Your task to perform on an android device: set the timer Image 0: 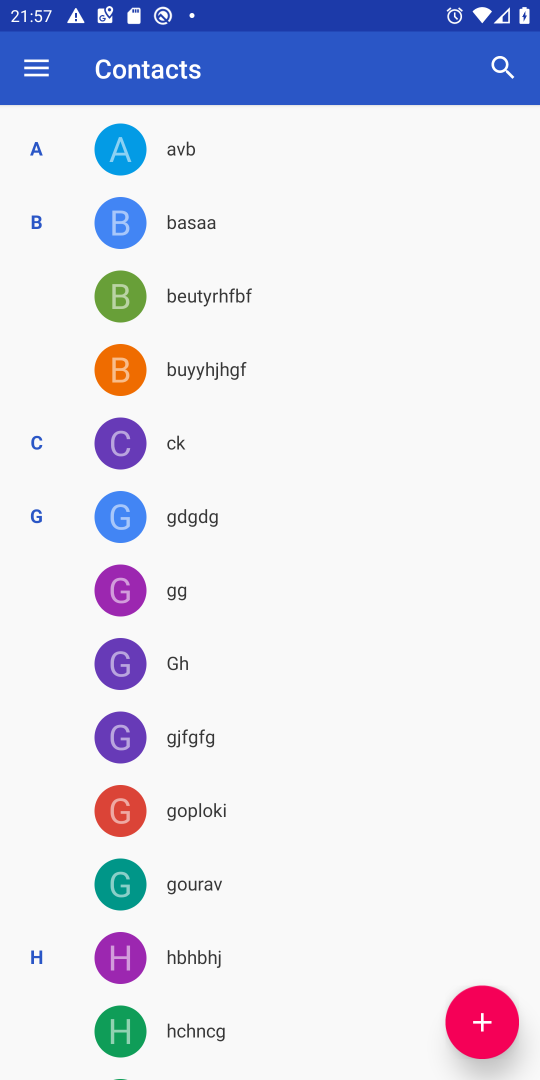
Step 0: press home button
Your task to perform on an android device: set the timer Image 1: 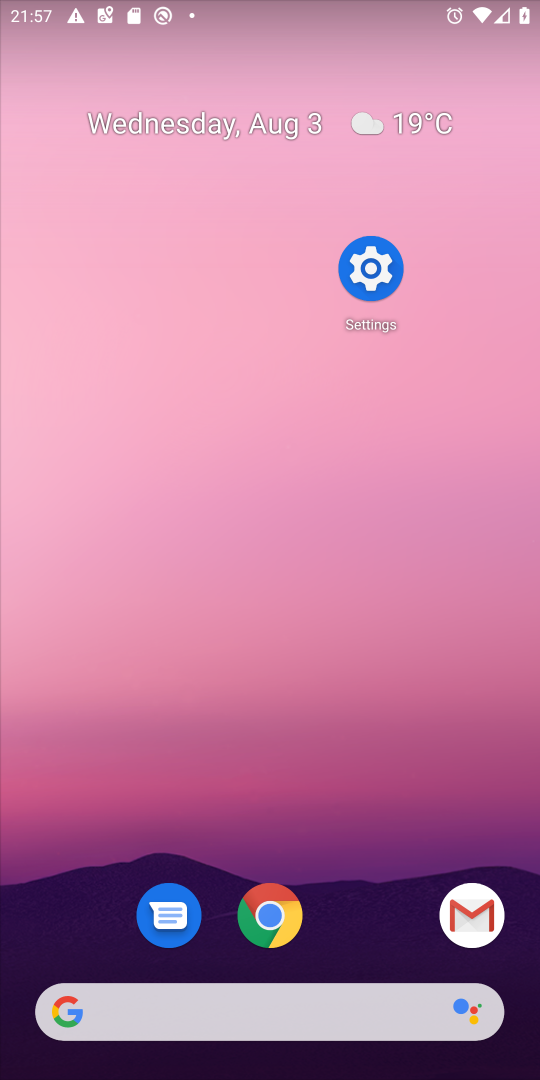
Step 1: drag from (319, 1031) to (196, 614)
Your task to perform on an android device: set the timer Image 2: 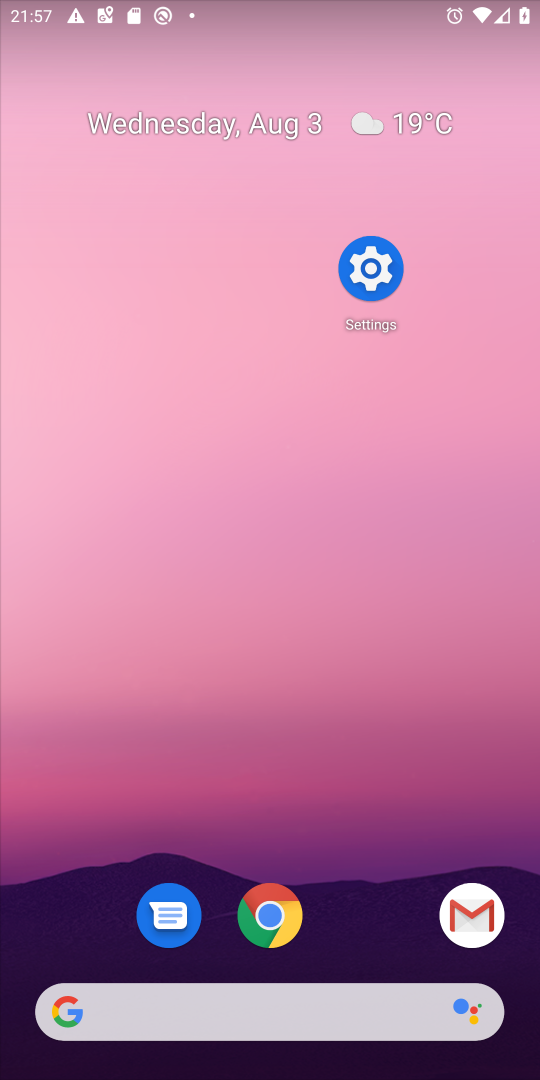
Step 2: drag from (363, 1061) to (252, 558)
Your task to perform on an android device: set the timer Image 3: 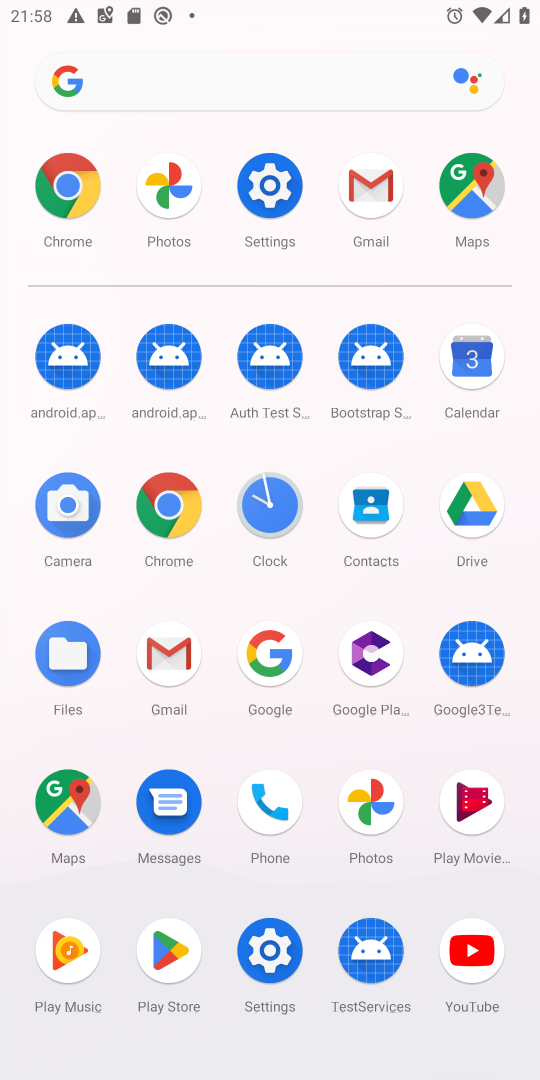
Step 3: click (287, 489)
Your task to perform on an android device: set the timer Image 4: 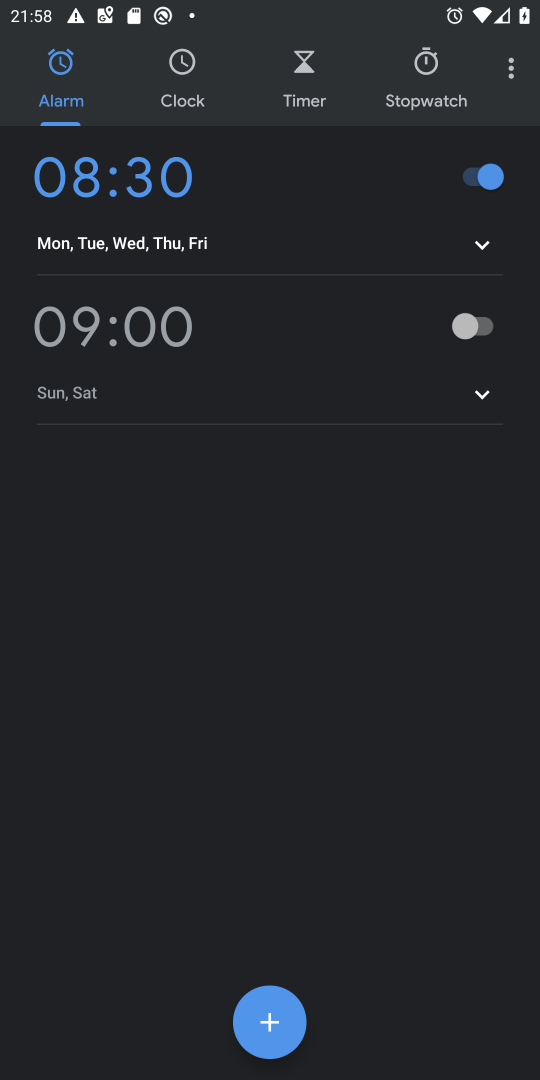
Step 4: click (299, 77)
Your task to perform on an android device: set the timer Image 5: 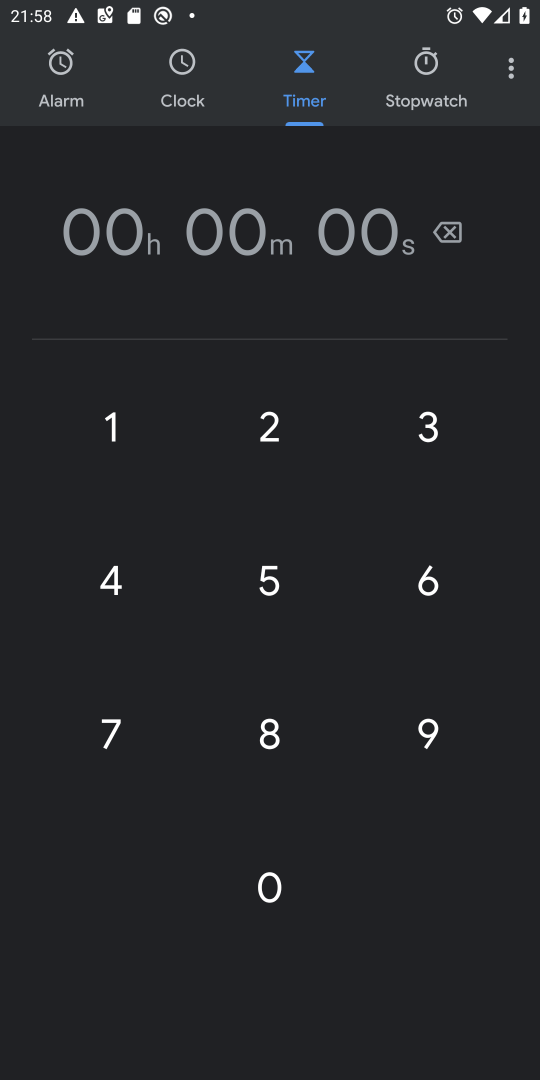
Step 5: click (273, 421)
Your task to perform on an android device: set the timer Image 6: 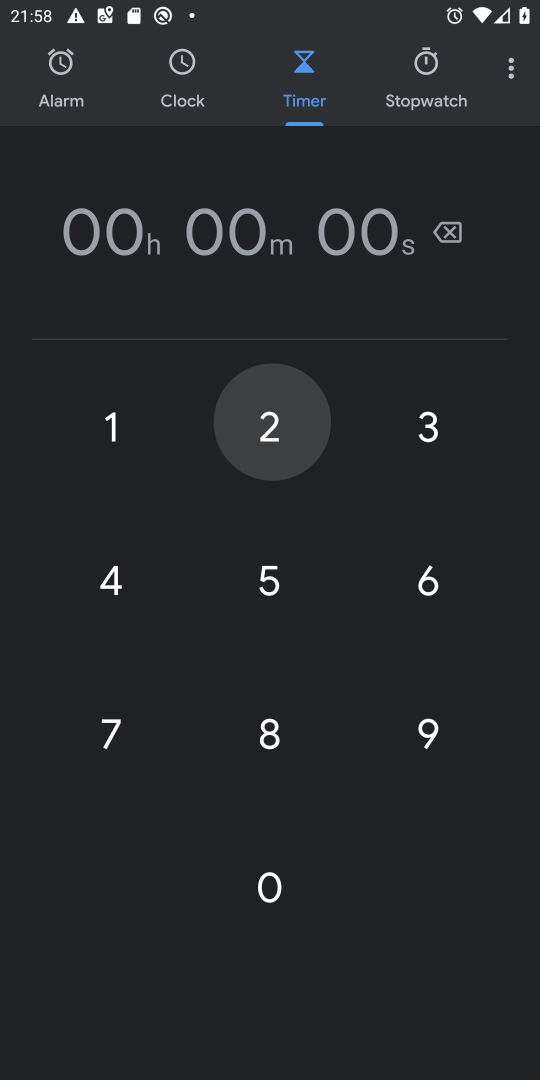
Step 6: click (282, 555)
Your task to perform on an android device: set the timer Image 7: 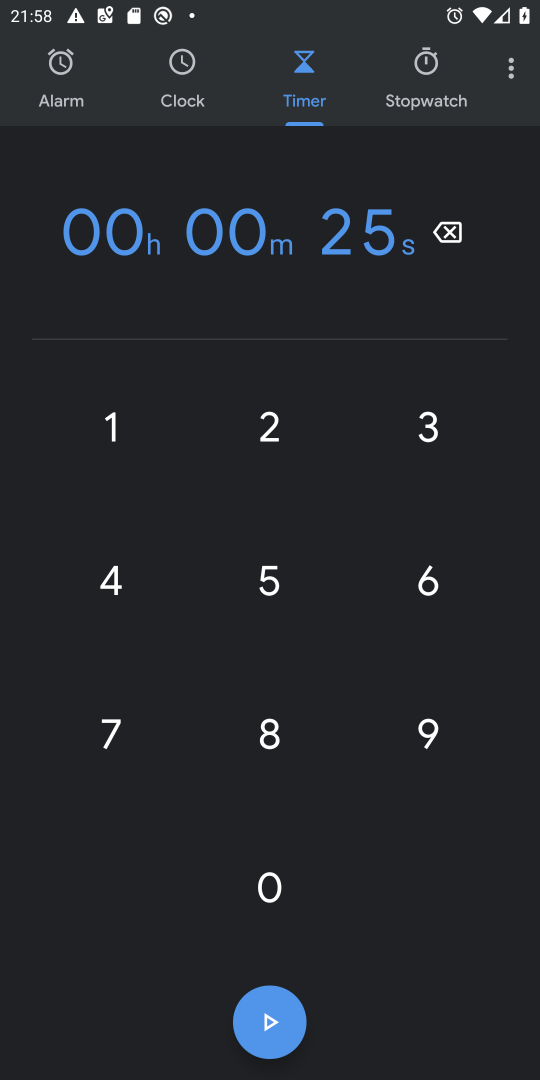
Step 7: click (148, 758)
Your task to perform on an android device: set the timer Image 8: 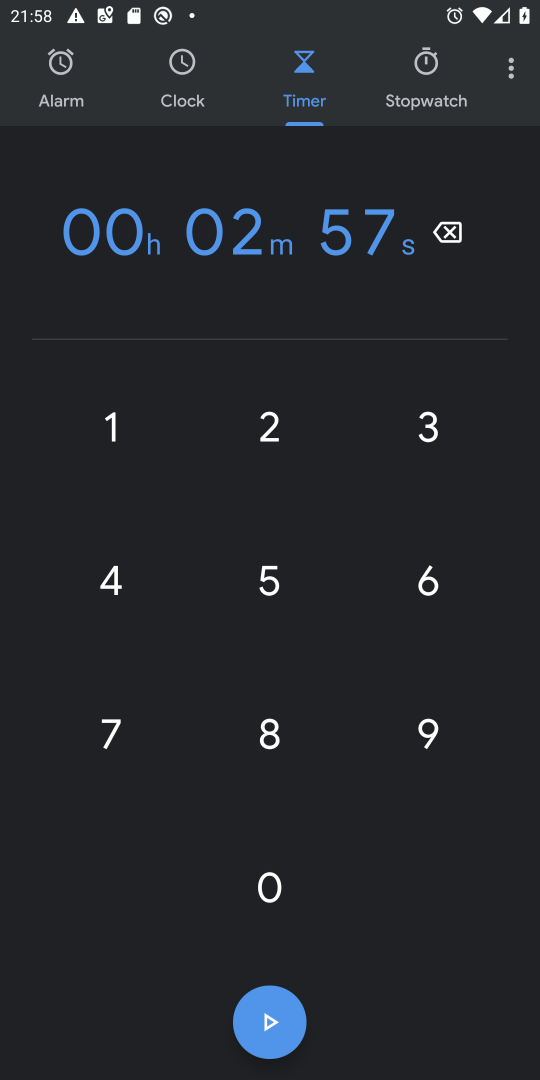
Step 8: click (125, 454)
Your task to perform on an android device: set the timer Image 9: 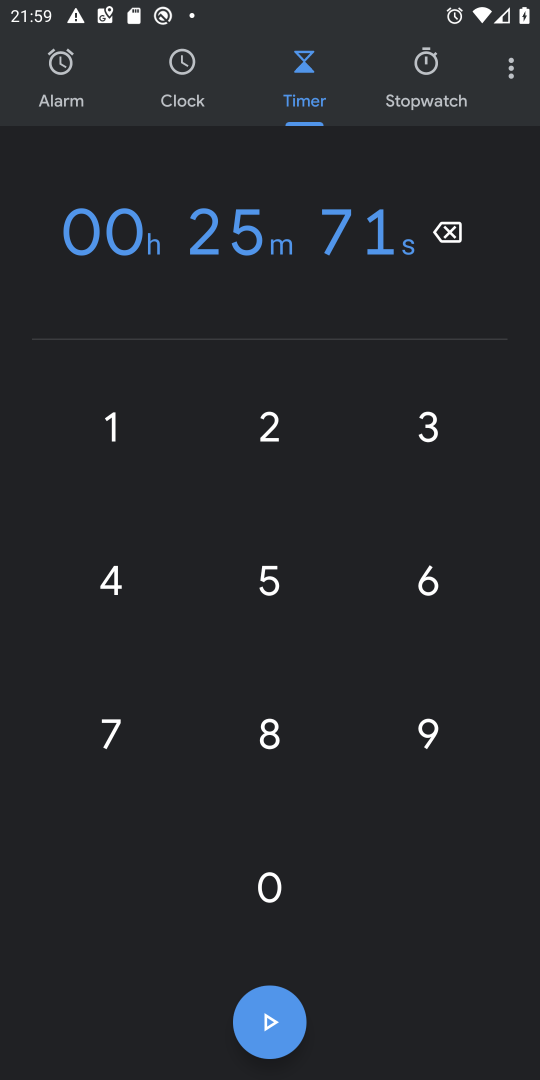
Step 9: task complete